Your task to perform on an android device: toggle airplane mode Image 0: 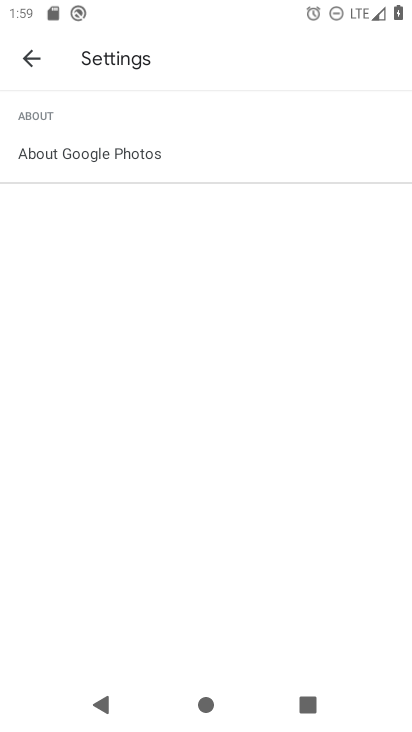
Step 0: press home button
Your task to perform on an android device: toggle airplane mode Image 1: 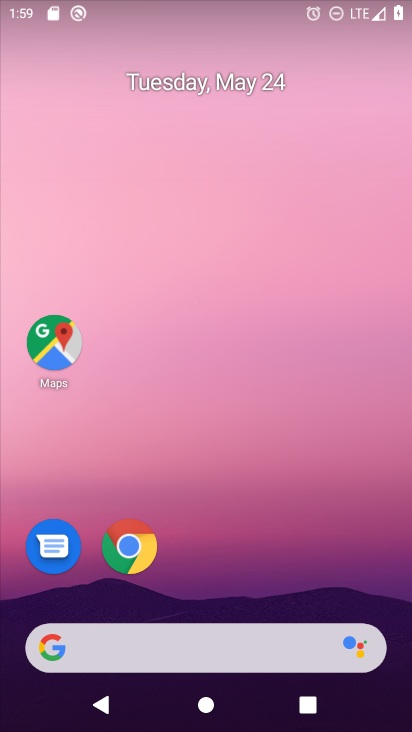
Step 1: drag from (205, 642) to (208, 3)
Your task to perform on an android device: toggle airplane mode Image 2: 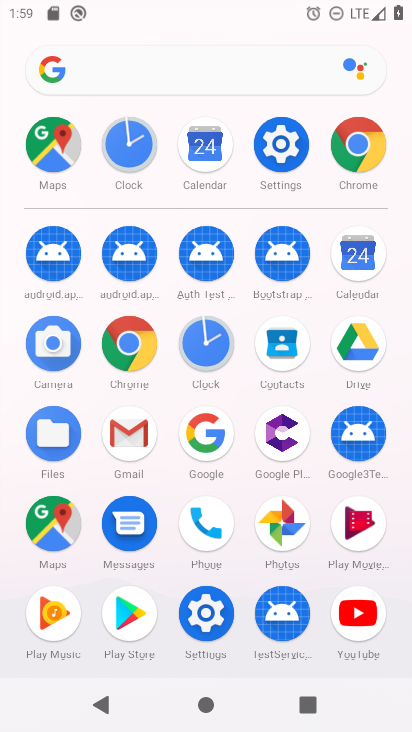
Step 2: click (291, 140)
Your task to perform on an android device: toggle airplane mode Image 3: 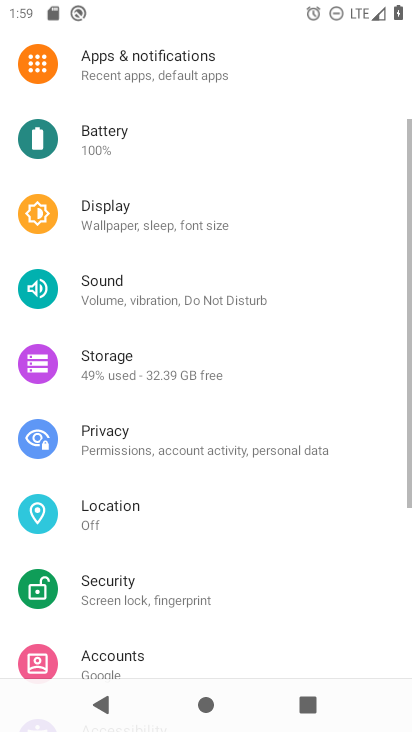
Step 3: drag from (326, 7) to (278, 649)
Your task to perform on an android device: toggle airplane mode Image 4: 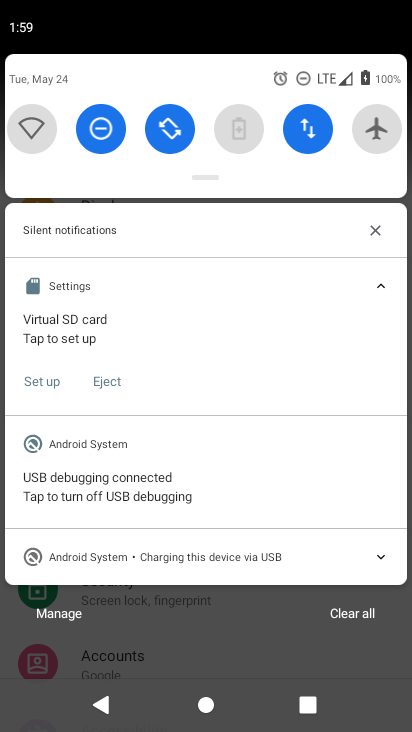
Step 4: click (361, 134)
Your task to perform on an android device: toggle airplane mode Image 5: 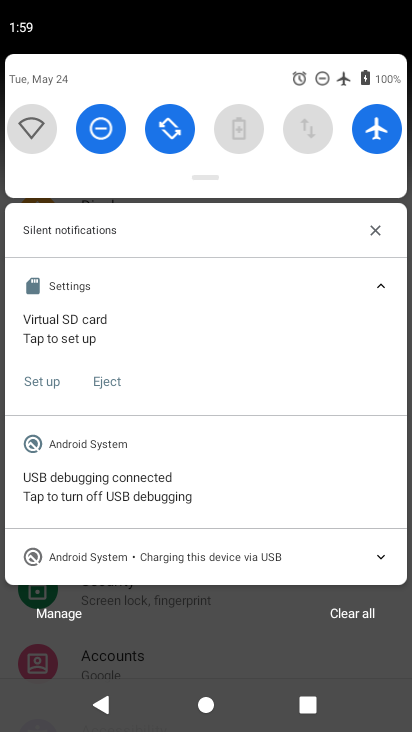
Step 5: task complete